Your task to perform on an android device: turn on improve location accuracy Image 0: 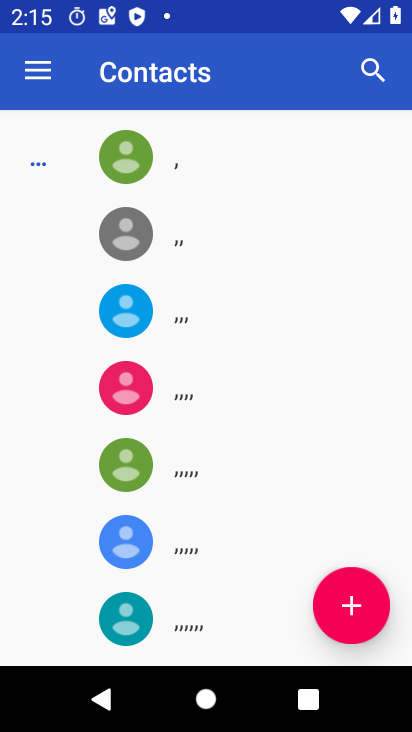
Step 0: press home button
Your task to perform on an android device: turn on improve location accuracy Image 1: 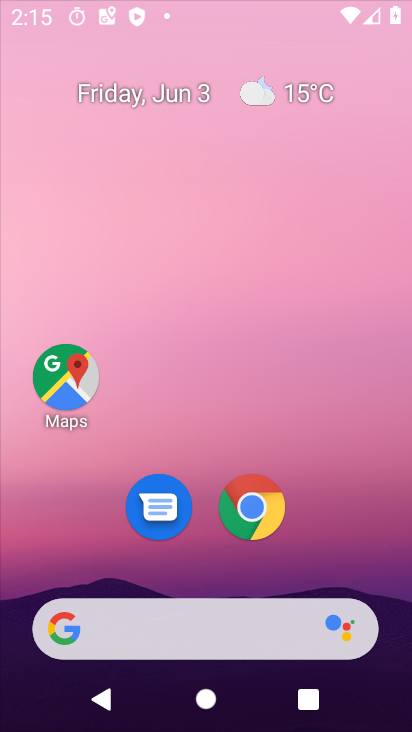
Step 1: drag from (402, 669) to (334, 28)
Your task to perform on an android device: turn on improve location accuracy Image 2: 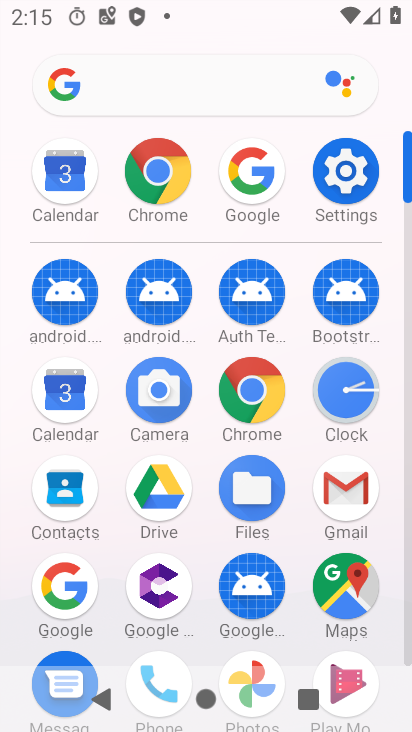
Step 2: click (344, 168)
Your task to perform on an android device: turn on improve location accuracy Image 3: 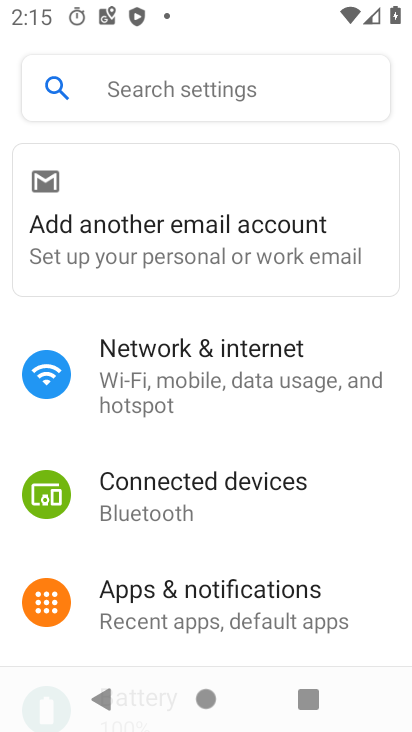
Step 3: drag from (203, 665) to (235, 193)
Your task to perform on an android device: turn on improve location accuracy Image 4: 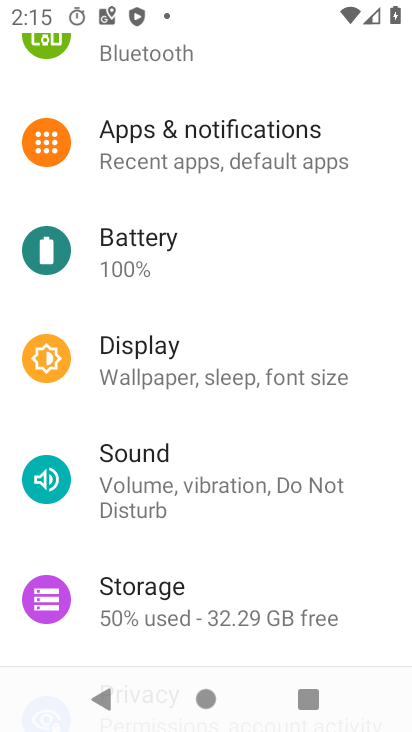
Step 4: drag from (153, 623) to (212, 104)
Your task to perform on an android device: turn on improve location accuracy Image 5: 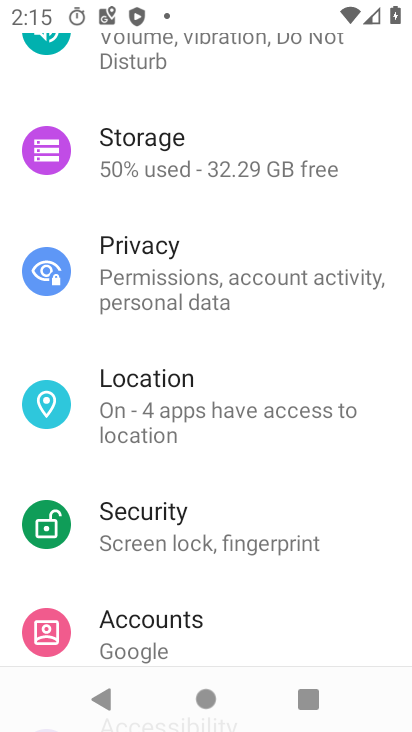
Step 5: click (134, 375)
Your task to perform on an android device: turn on improve location accuracy Image 6: 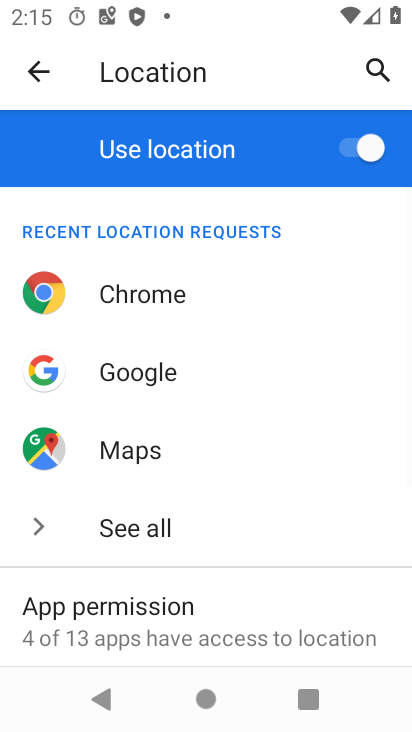
Step 6: drag from (172, 649) to (182, 216)
Your task to perform on an android device: turn on improve location accuracy Image 7: 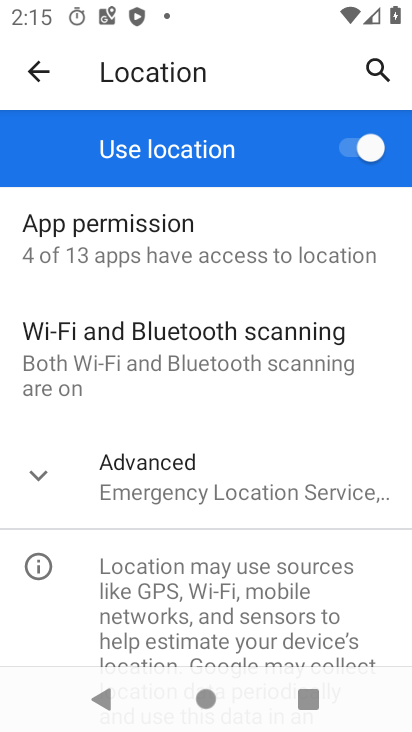
Step 7: click (180, 464)
Your task to perform on an android device: turn on improve location accuracy Image 8: 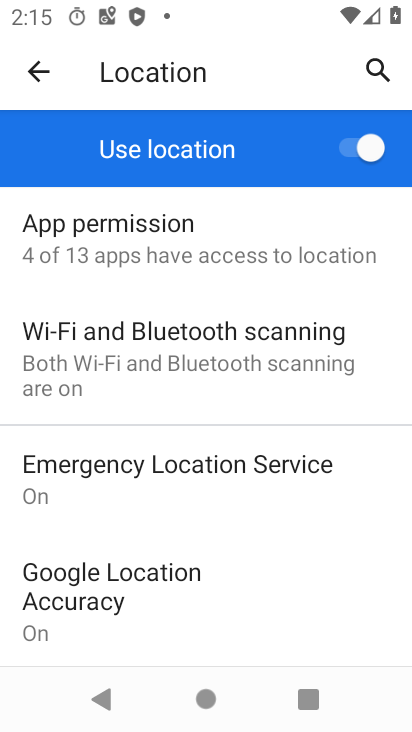
Step 8: click (132, 616)
Your task to perform on an android device: turn on improve location accuracy Image 9: 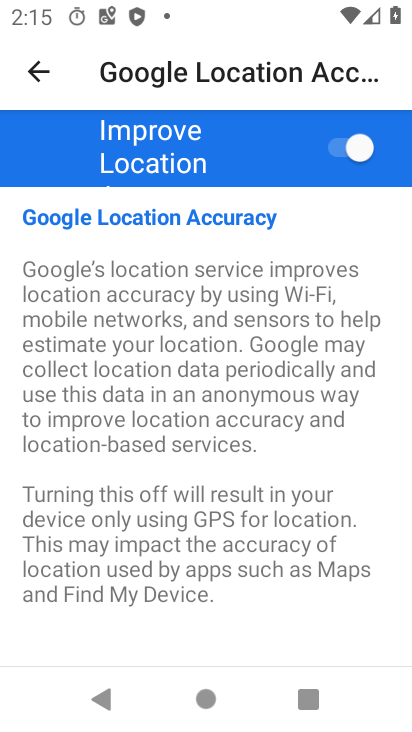
Step 9: task complete